Your task to perform on an android device: turn off improve location accuracy Image 0: 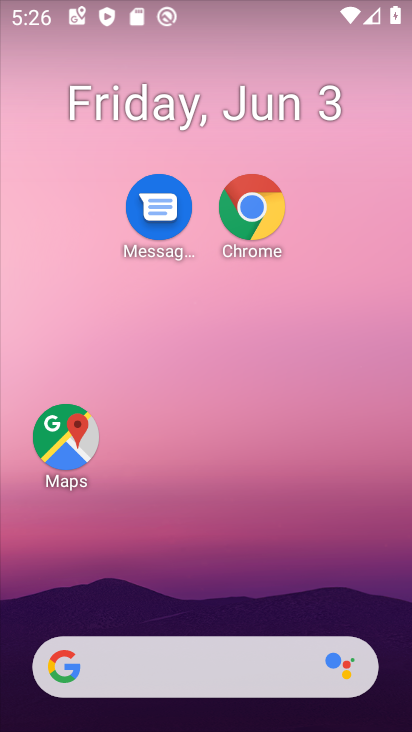
Step 0: drag from (222, 606) to (272, 251)
Your task to perform on an android device: turn off improve location accuracy Image 1: 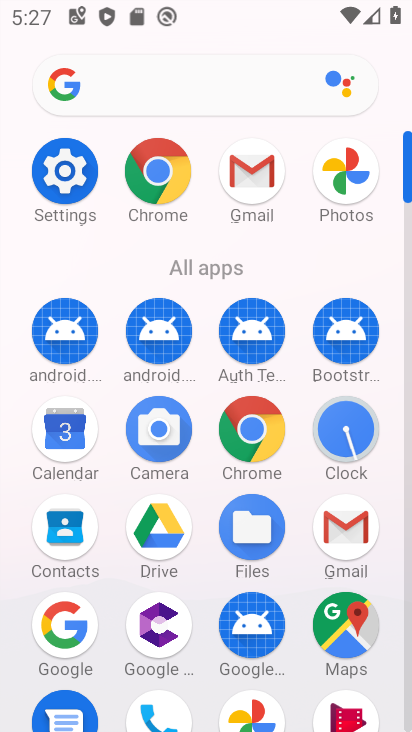
Step 1: click (72, 184)
Your task to perform on an android device: turn off improve location accuracy Image 2: 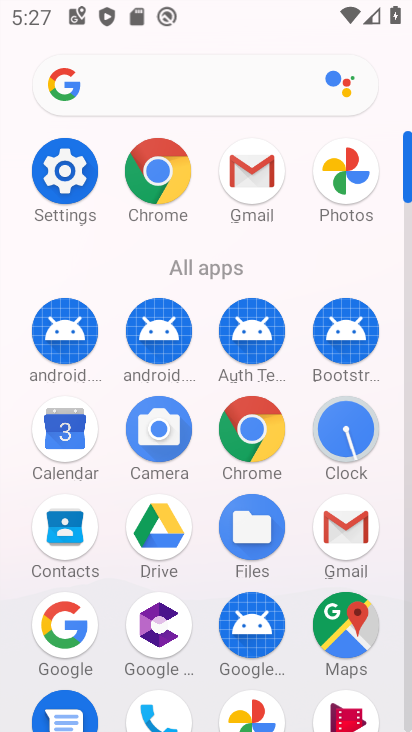
Step 2: click (52, 182)
Your task to perform on an android device: turn off improve location accuracy Image 3: 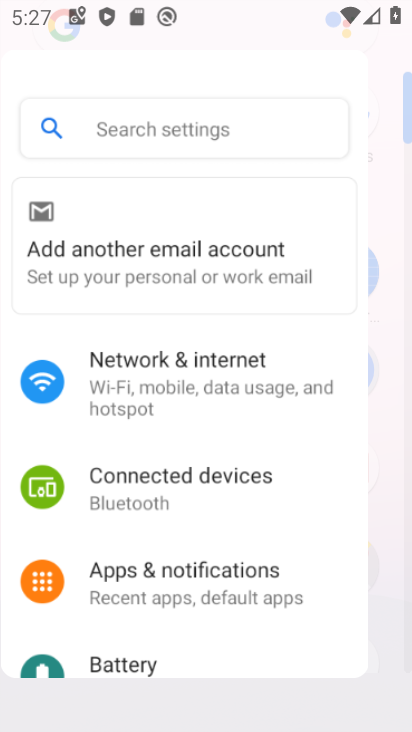
Step 3: click (66, 178)
Your task to perform on an android device: turn off improve location accuracy Image 4: 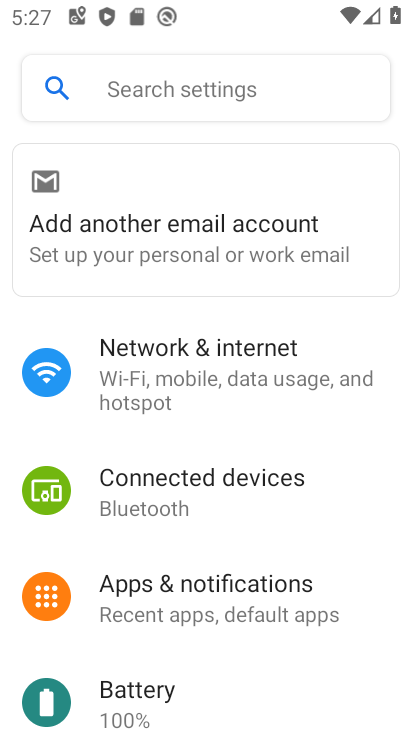
Step 4: drag from (175, 584) to (210, 354)
Your task to perform on an android device: turn off improve location accuracy Image 5: 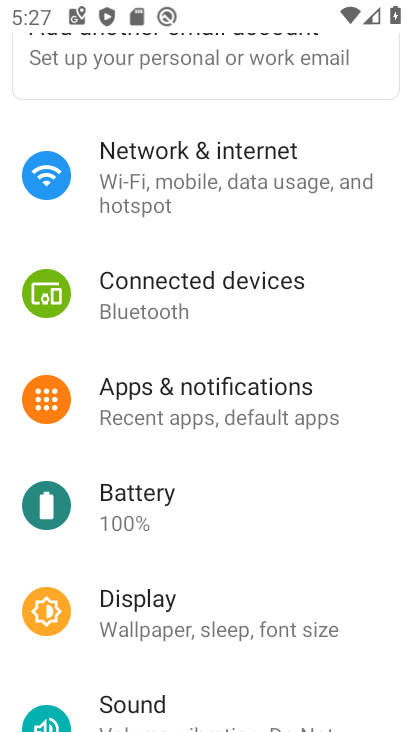
Step 5: drag from (203, 607) to (237, 432)
Your task to perform on an android device: turn off improve location accuracy Image 6: 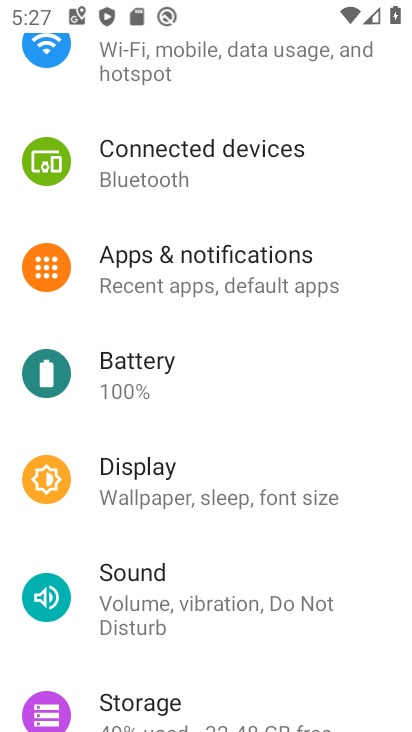
Step 6: drag from (185, 562) to (212, 364)
Your task to perform on an android device: turn off improve location accuracy Image 7: 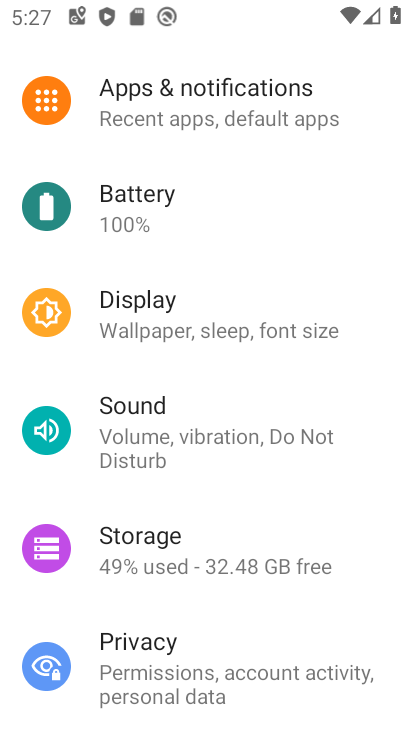
Step 7: drag from (194, 553) to (247, 321)
Your task to perform on an android device: turn off improve location accuracy Image 8: 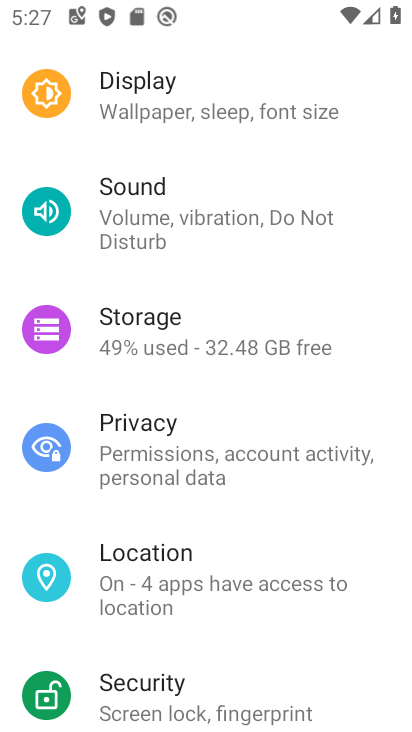
Step 8: click (149, 579)
Your task to perform on an android device: turn off improve location accuracy Image 9: 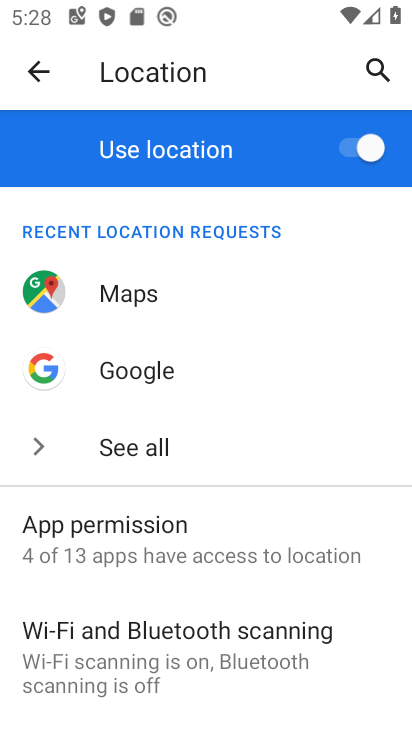
Step 9: click (117, 545)
Your task to perform on an android device: turn off improve location accuracy Image 10: 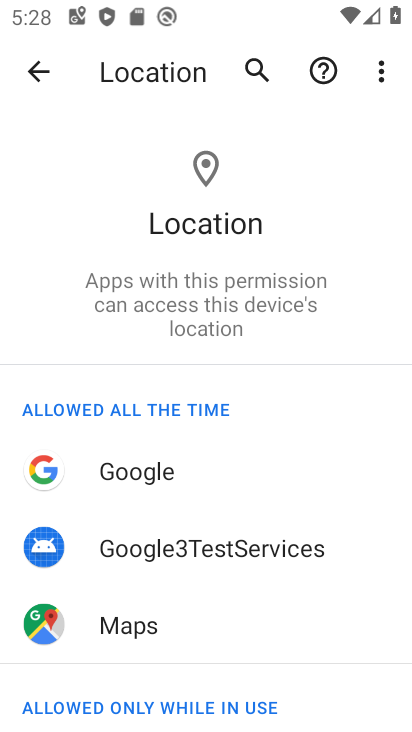
Step 10: press back button
Your task to perform on an android device: turn off improve location accuracy Image 11: 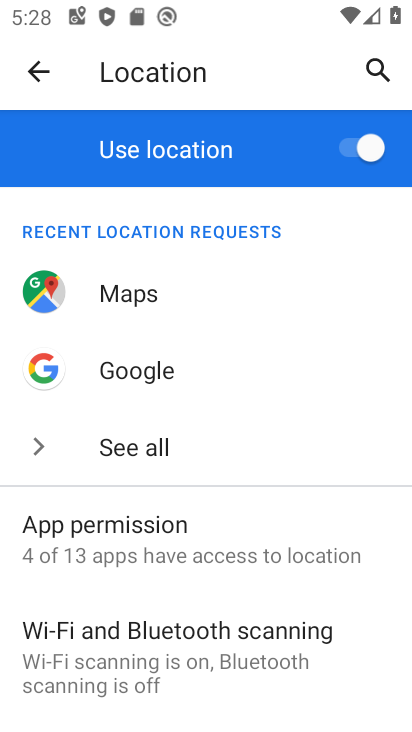
Step 11: drag from (263, 657) to (236, 478)
Your task to perform on an android device: turn off improve location accuracy Image 12: 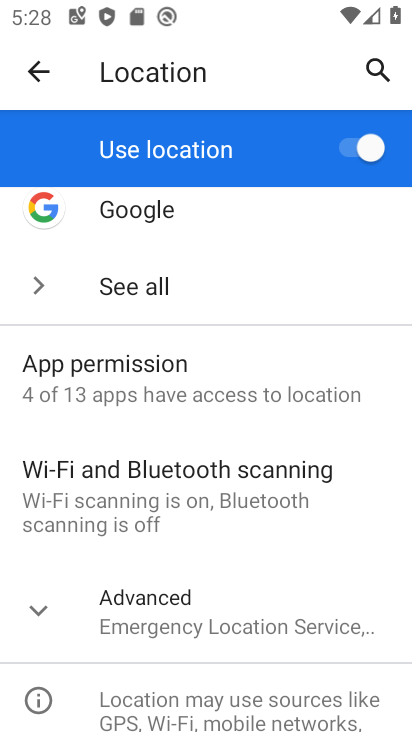
Step 12: drag from (251, 663) to (263, 386)
Your task to perform on an android device: turn off improve location accuracy Image 13: 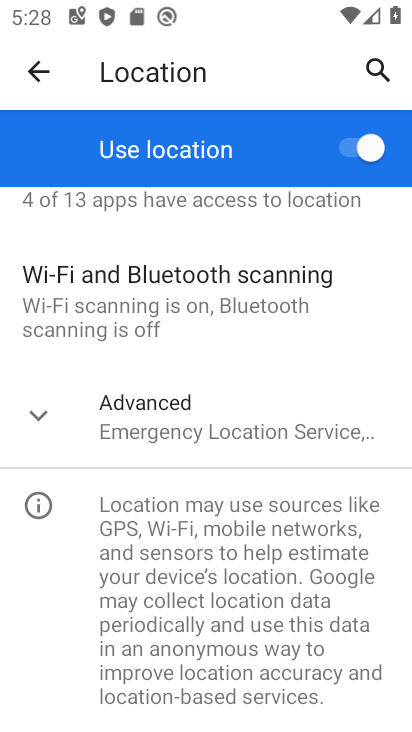
Step 13: click (148, 417)
Your task to perform on an android device: turn off improve location accuracy Image 14: 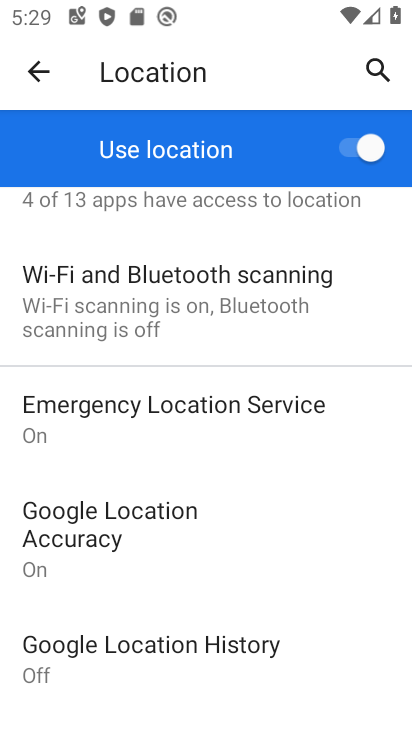
Step 14: drag from (181, 672) to (223, 507)
Your task to perform on an android device: turn off improve location accuracy Image 15: 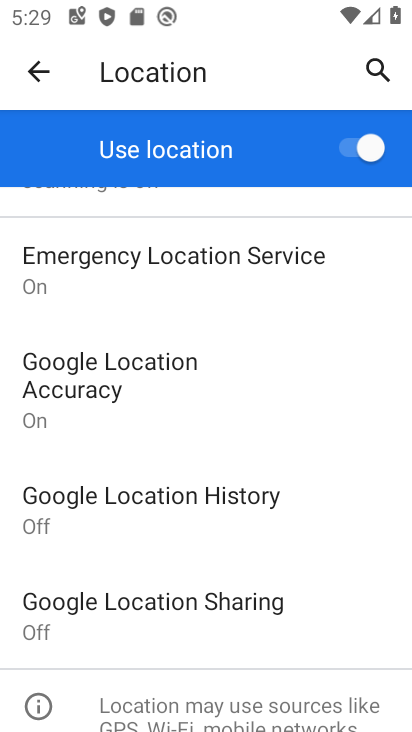
Step 15: drag from (159, 538) to (175, 503)
Your task to perform on an android device: turn off improve location accuracy Image 16: 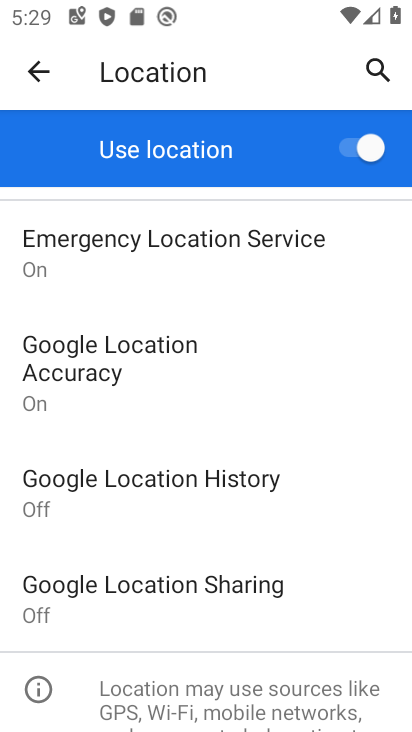
Step 16: click (129, 381)
Your task to perform on an android device: turn off improve location accuracy Image 17: 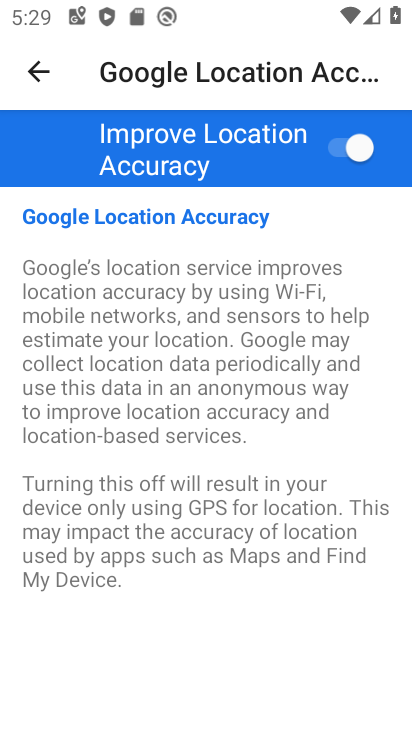
Step 17: click (346, 153)
Your task to perform on an android device: turn off improve location accuracy Image 18: 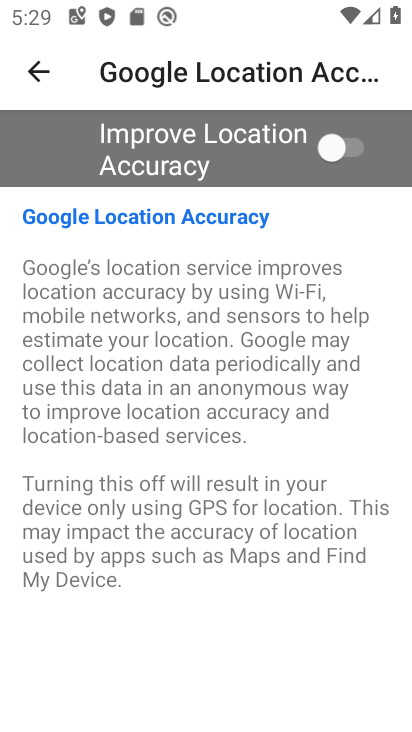
Step 18: task complete